Your task to perform on an android device: check data usage Image 0: 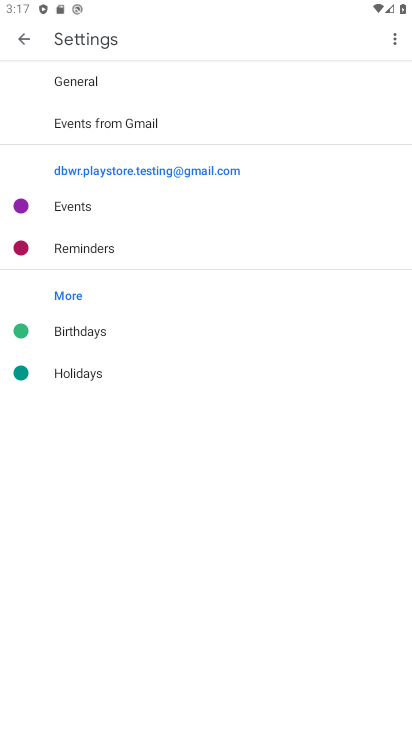
Step 0: press home button
Your task to perform on an android device: check data usage Image 1: 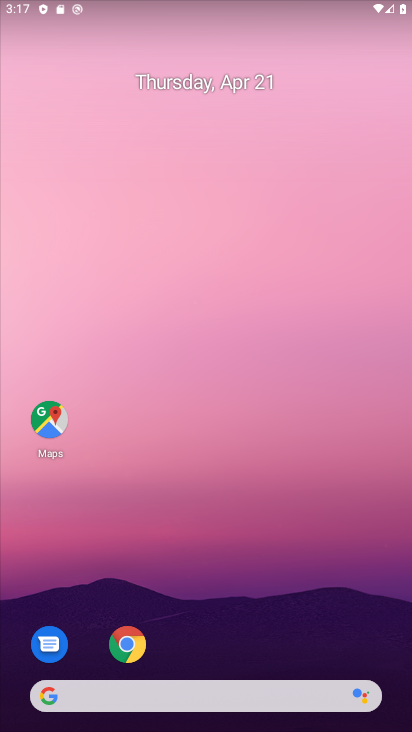
Step 1: drag from (217, 596) to (213, 131)
Your task to perform on an android device: check data usage Image 2: 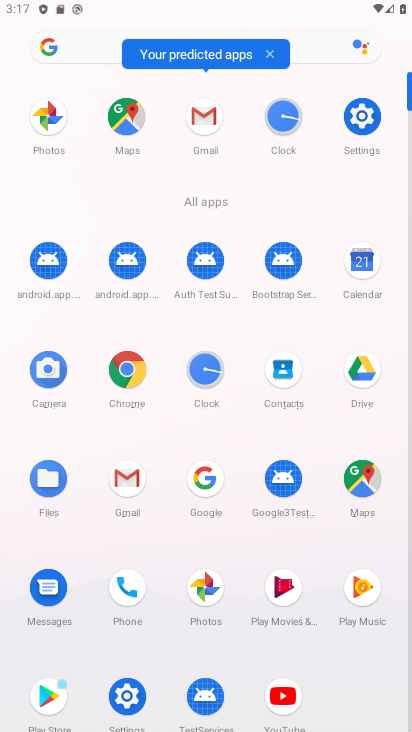
Step 2: click (361, 118)
Your task to perform on an android device: check data usage Image 3: 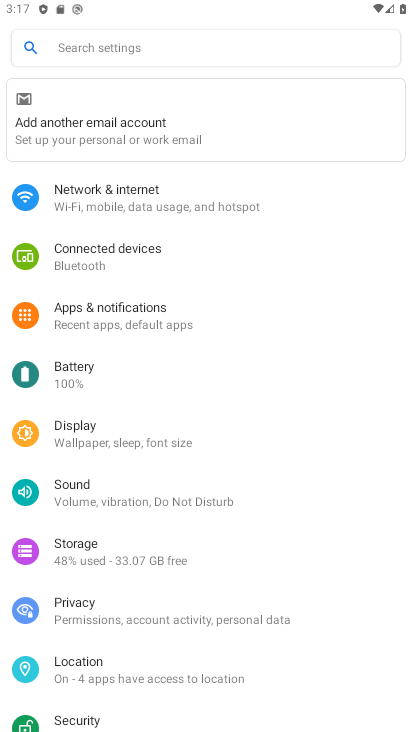
Step 3: click (79, 191)
Your task to perform on an android device: check data usage Image 4: 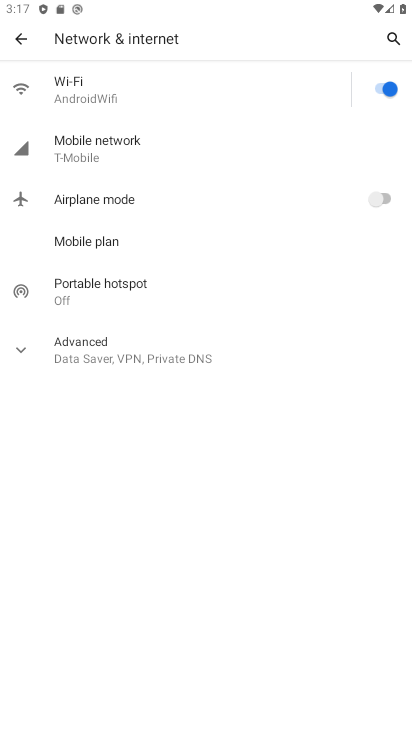
Step 4: click (90, 147)
Your task to perform on an android device: check data usage Image 5: 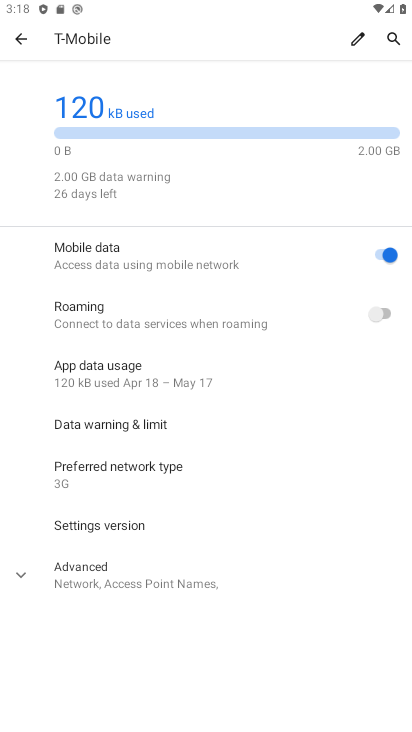
Step 5: task complete